Your task to perform on an android device: Open Google Maps Image 0: 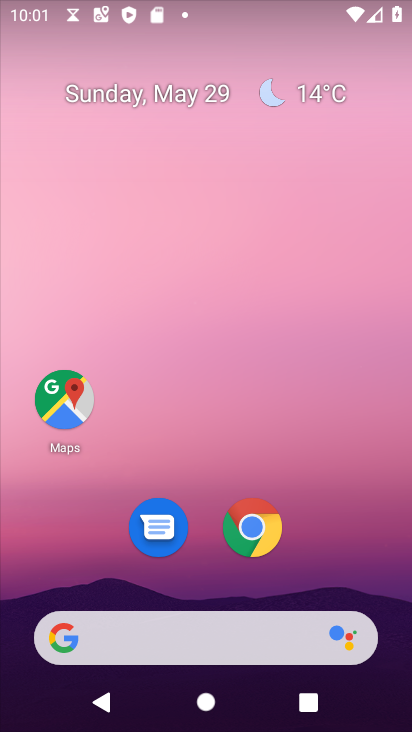
Step 0: press home button
Your task to perform on an android device: Open Google Maps Image 1: 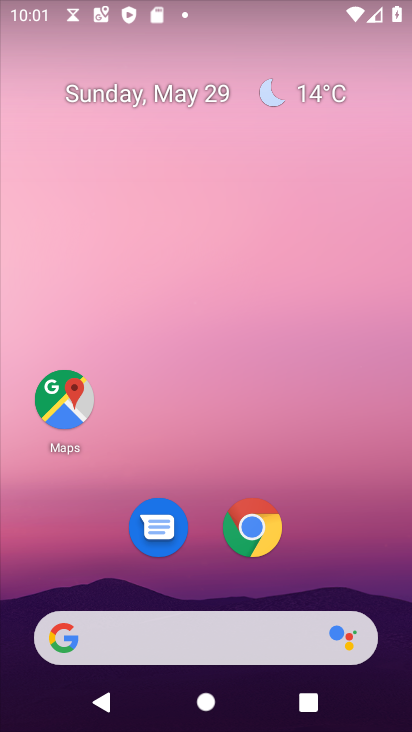
Step 1: click (74, 405)
Your task to perform on an android device: Open Google Maps Image 2: 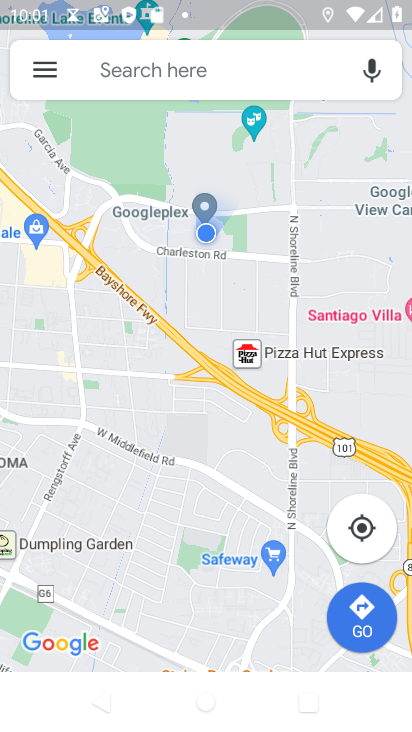
Step 2: task complete